Your task to perform on an android device: change notification settings in the gmail app Image 0: 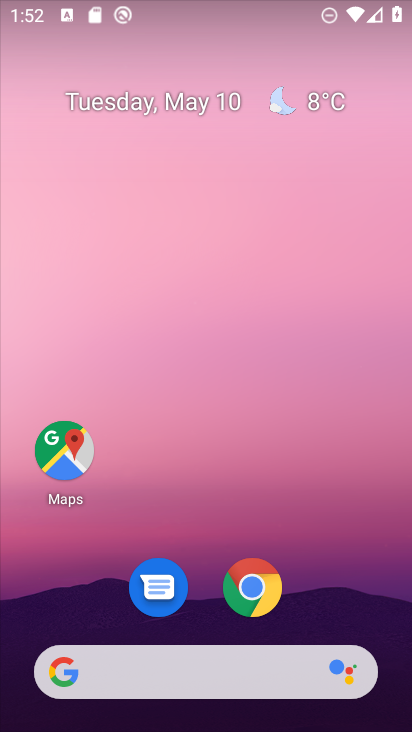
Step 0: drag from (389, 680) to (357, 314)
Your task to perform on an android device: change notification settings in the gmail app Image 1: 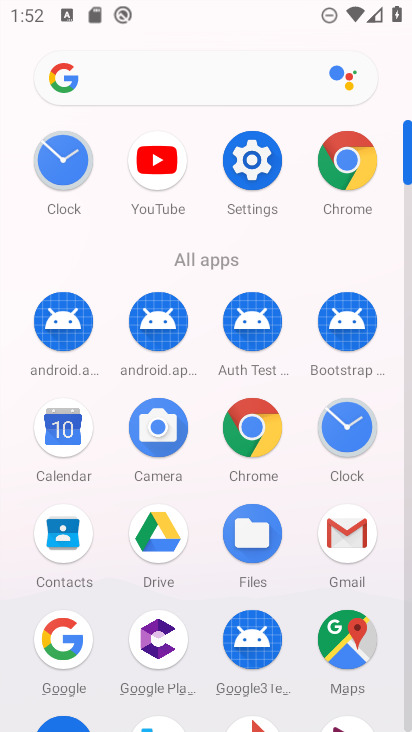
Step 1: click (337, 545)
Your task to perform on an android device: change notification settings in the gmail app Image 2: 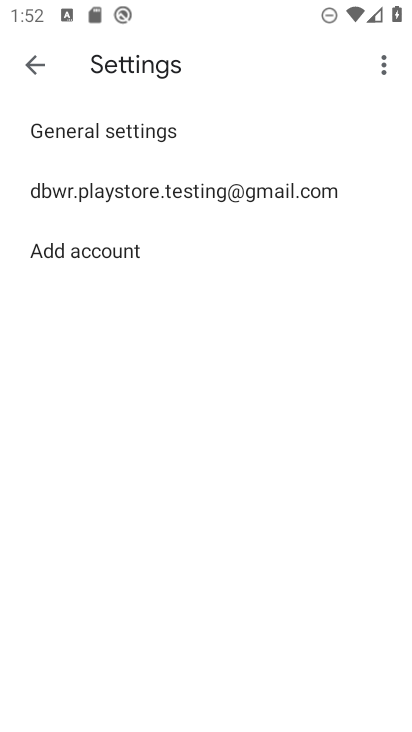
Step 2: click (81, 130)
Your task to perform on an android device: change notification settings in the gmail app Image 3: 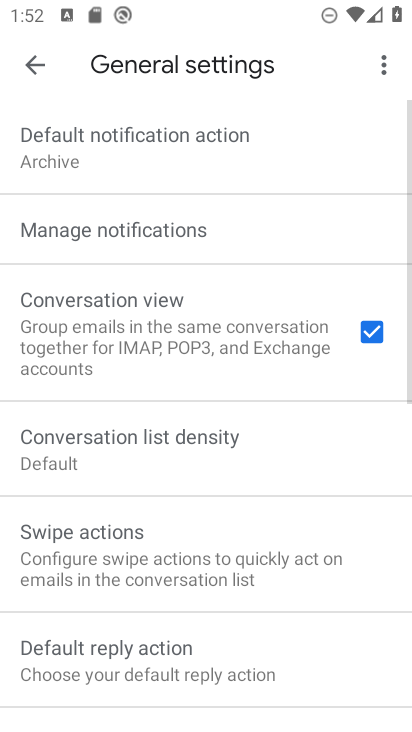
Step 3: click (96, 227)
Your task to perform on an android device: change notification settings in the gmail app Image 4: 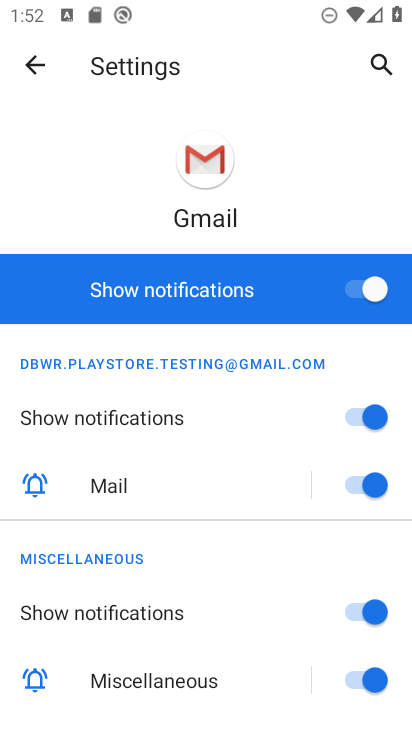
Step 4: click (351, 286)
Your task to perform on an android device: change notification settings in the gmail app Image 5: 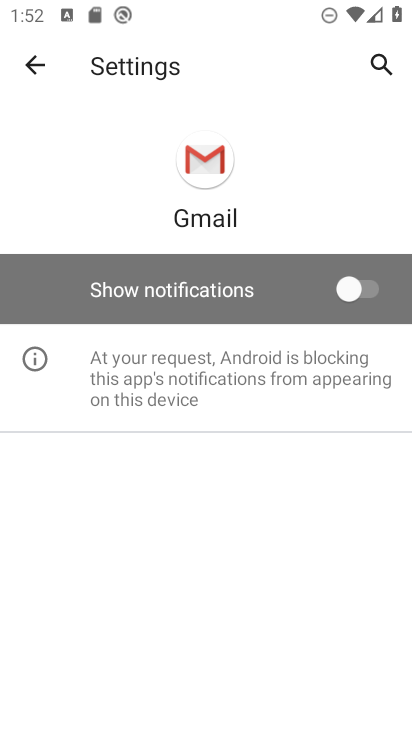
Step 5: task complete